Your task to perform on an android device: Go to Yahoo.com Image 0: 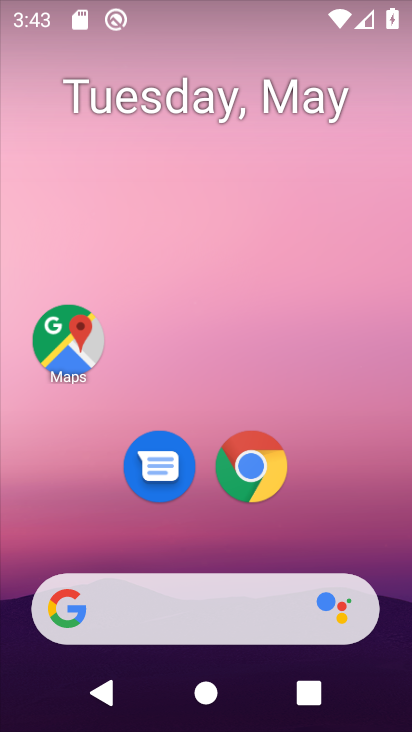
Step 0: click (260, 469)
Your task to perform on an android device: Go to Yahoo.com Image 1: 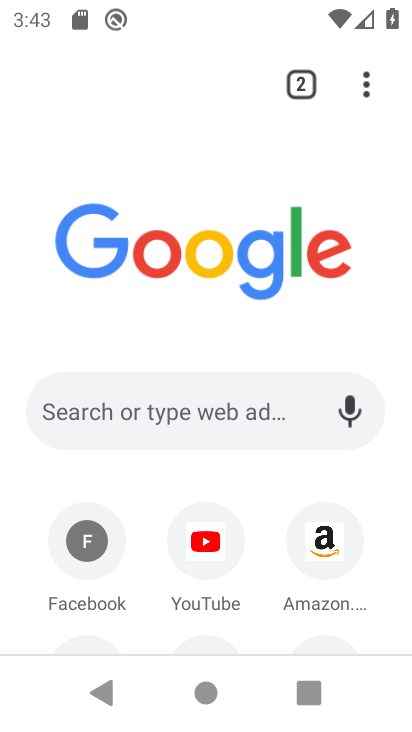
Step 1: drag from (204, 452) to (195, 189)
Your task to perform on an android device: Go to Yahoo.com Image 2: 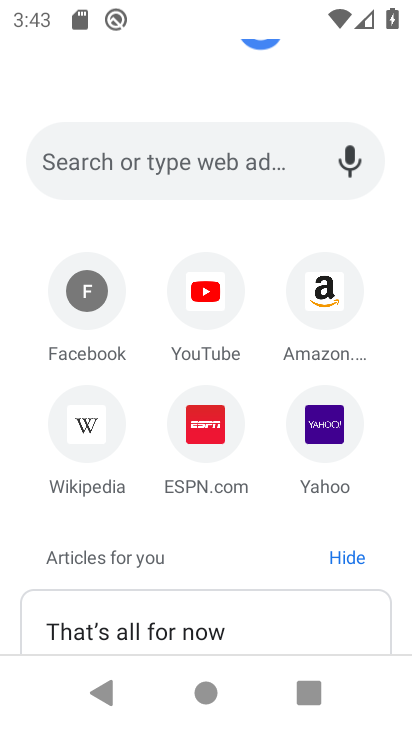
Step 2: click (351, 434)
Your task to perform on an android device: Go to Yahoo.com Image 3: 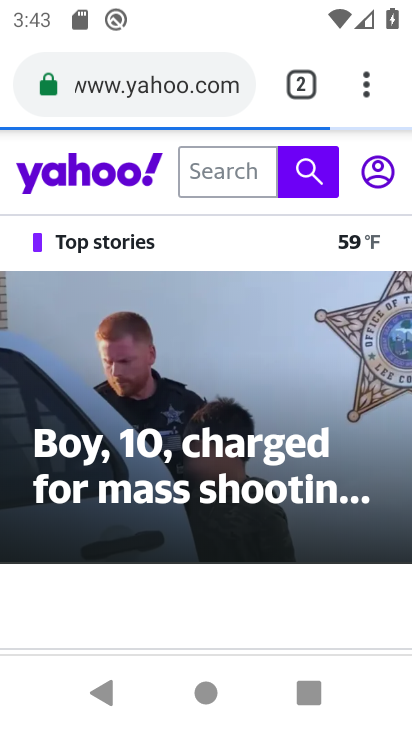
Step 3: task complete